Your task to perform on an android device: allow notifications from all sites in the chrome app Image 0: 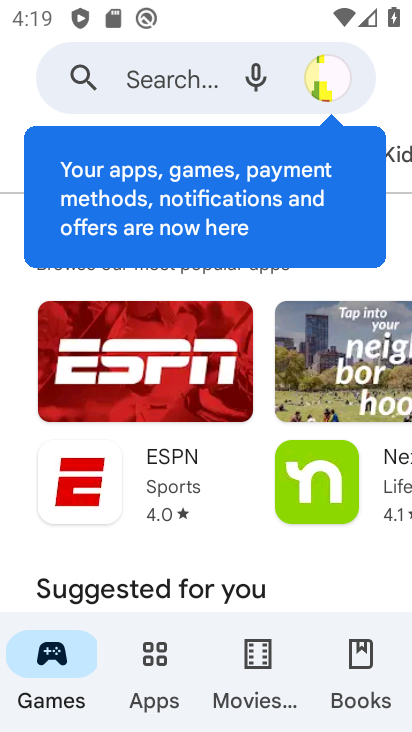
Step 0: press home button
Your task to perform on an android device: allow notifications from all sites in the chrome app Image 1: 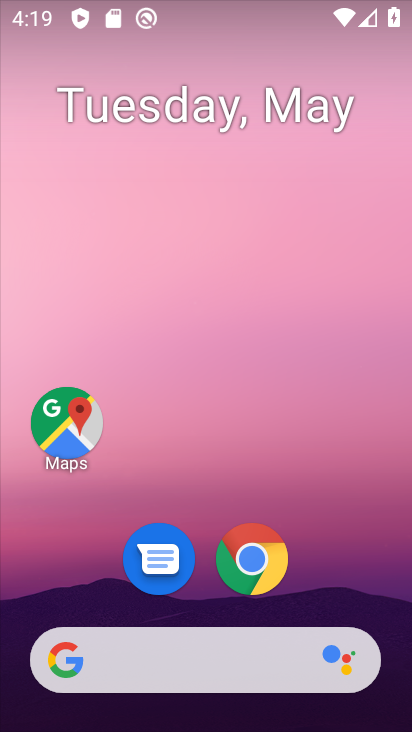
Step 1: drag from (355, 588) to (243, 53)
Your task to perform on an android device: allow notifications from all sites in the chrome app Image 2: 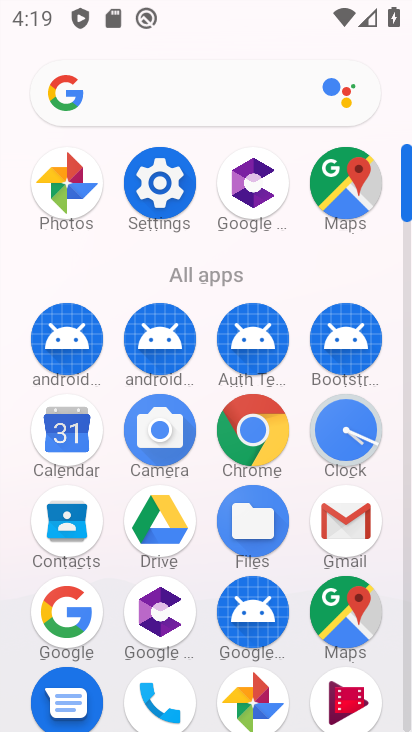
Step 2: click (259, 432)
Your task to perform on an android device: allow notifications from all sites in the chrome app Image 3: 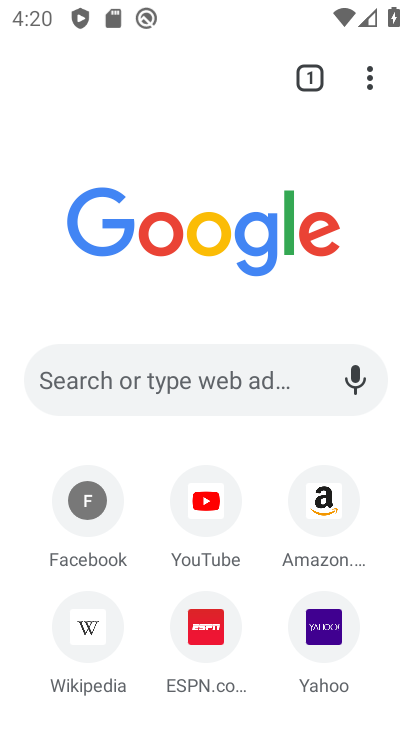
Step 3: click (372, 68)
Your task to perform on an android device: allow notifications from all sites in the chrome app Image 4: 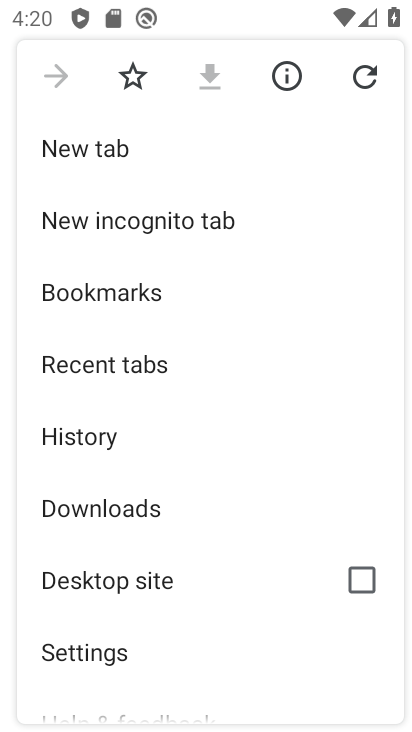
Step 4: click (73, 656)
Your task to perform on an android device: allow notifications from all sites in the chrome app Image 5: 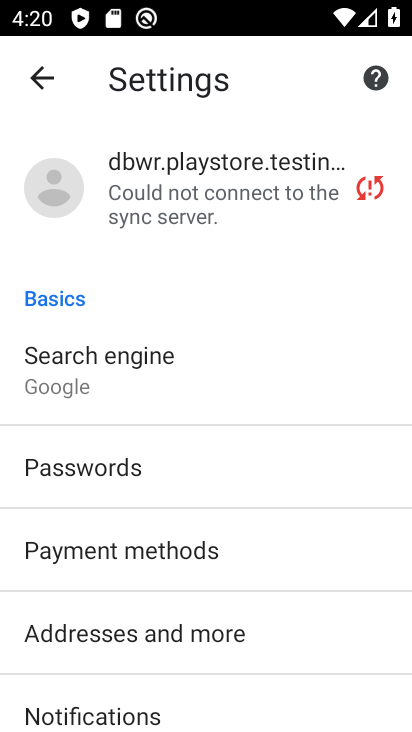
Step 5: click (102, 722)
Your task to perform on an android device: allow notifications from all sites in the chrome app Image 6: 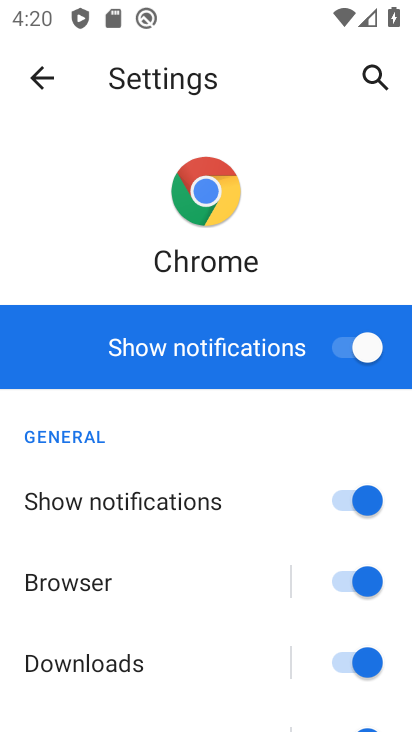
Step 6: drag from (232, 583) to (237, 186)
Your task to perform on an android device: allow notifications from all sites in the chrome app Image 7: 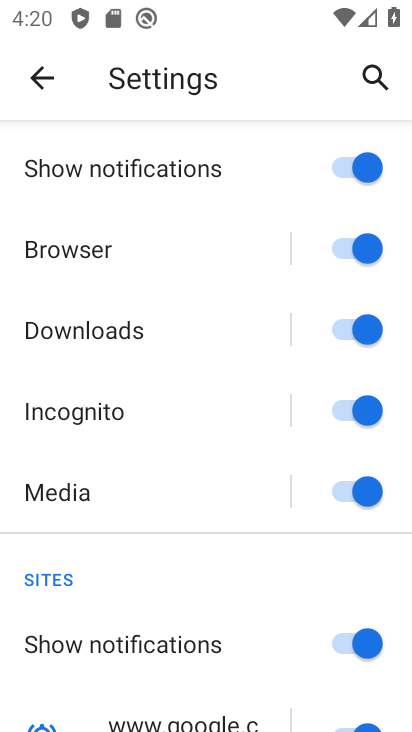
Step 7: drag from (138, 484) to (117, 67)
Your task to perform on an android device: allow notifications from all sites in the chrome app Image 8: 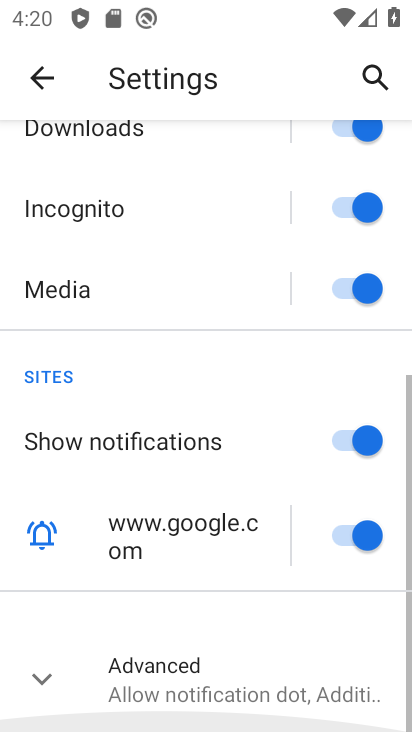
Step 8: click (117, 67)
Your task to perform on an android device: allow notifications from all sites in the chrome app Image 9: 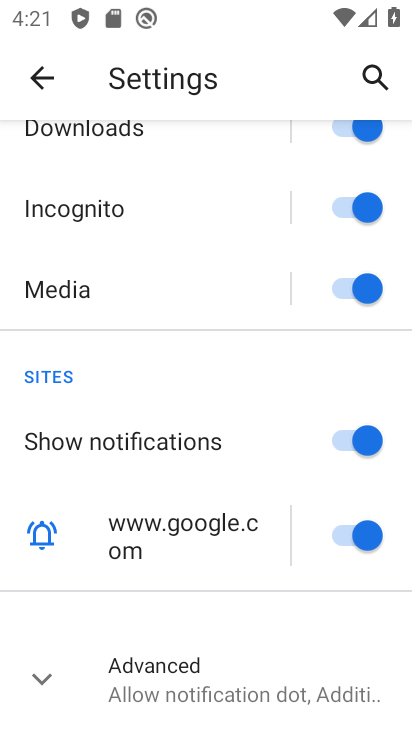
Step 9: task complete